Your task to perform on an android device: change alarm snooze length Image 0: 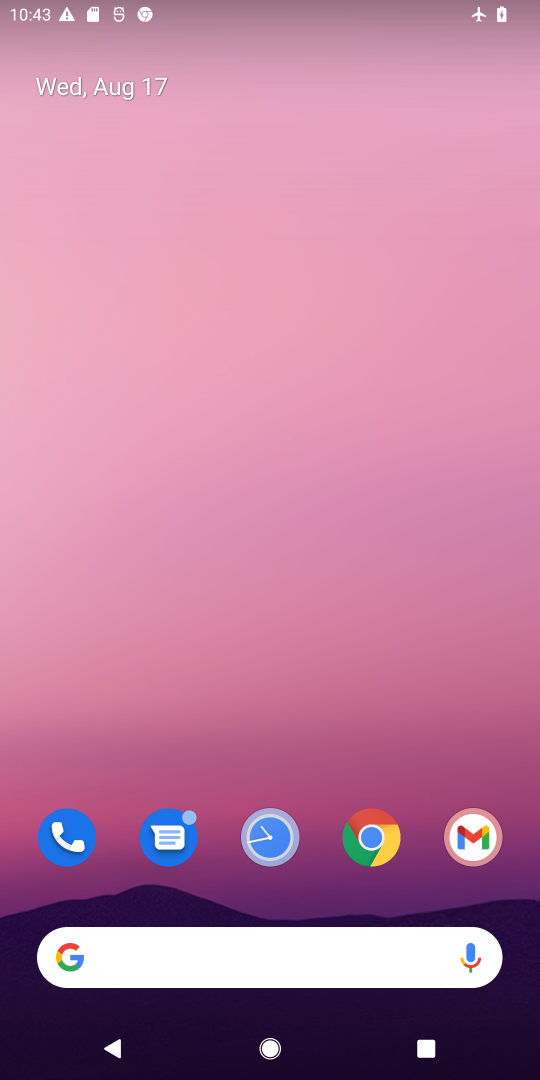
Step 0: drag from (295, 950) to (323, 354)
Your task to perform on an android device: change alarm snooze length Image 1: 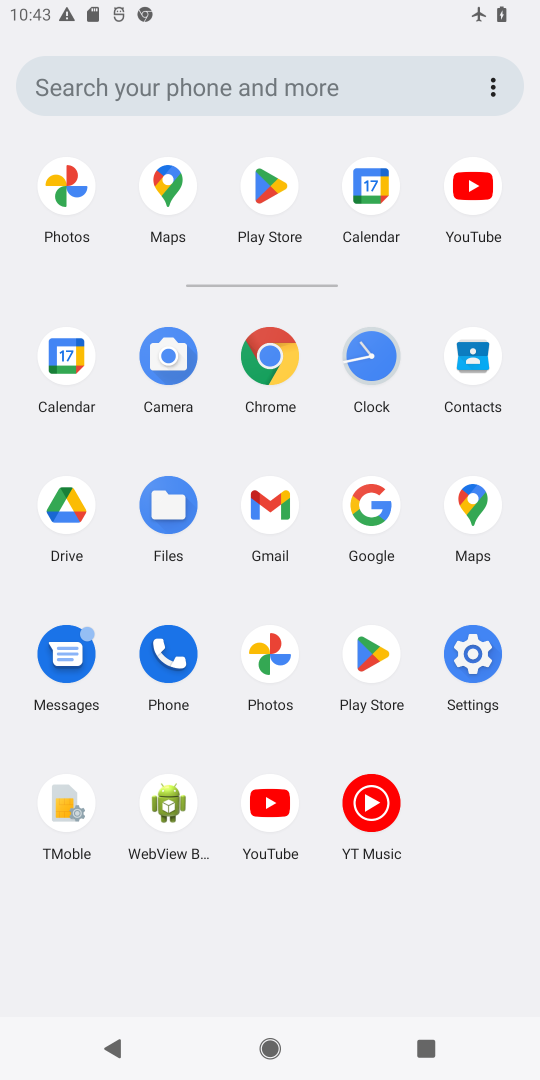
Step 1: click (371, 358)
Your task to perform on an android device: change alarm snooze length Image 2: 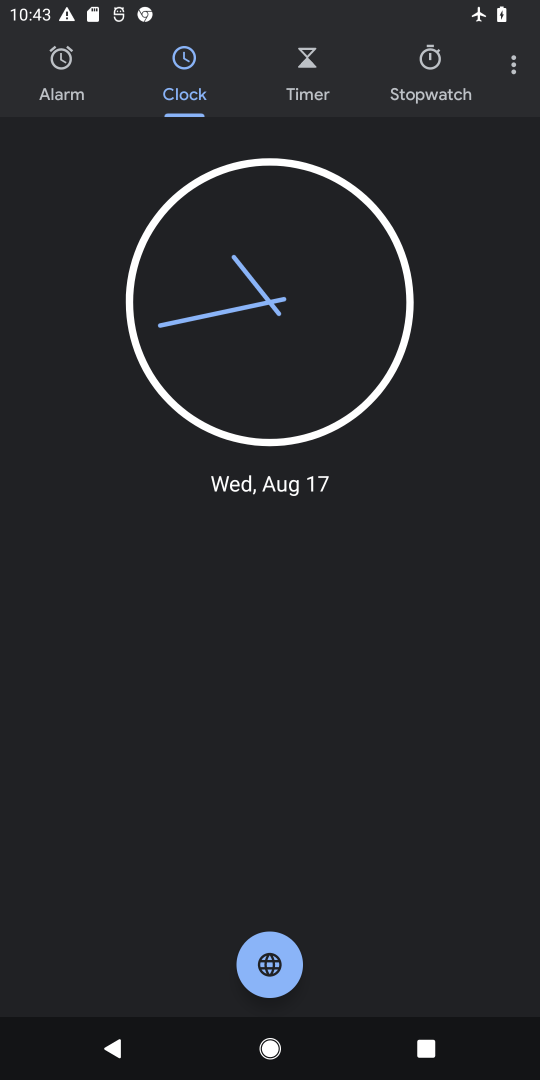
Step 2: click (513, 64)
Your task to perform on an android device: change alarm snooze length Image 3: 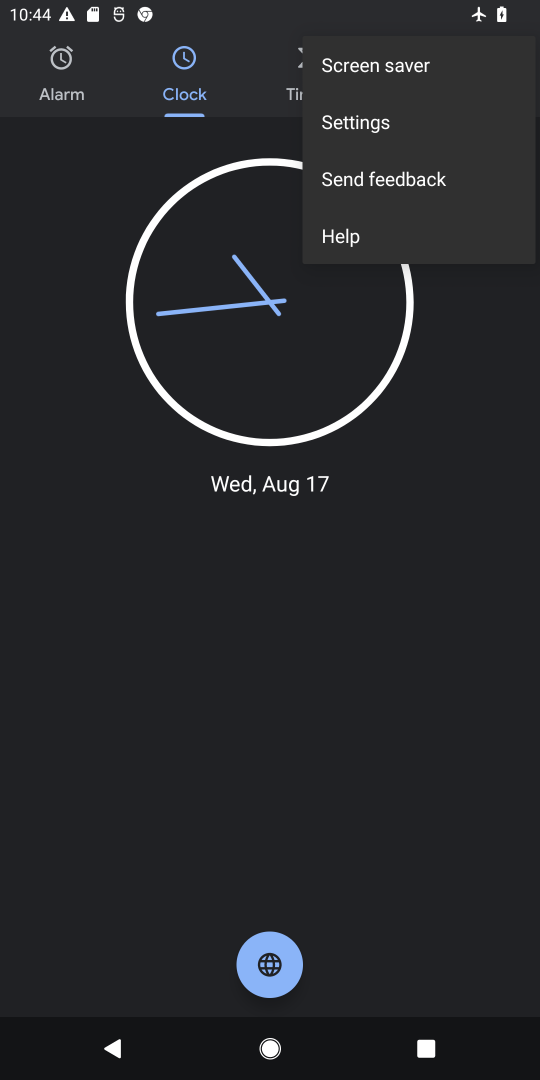
Step 3: click (380, 125)
Your task to perform on an android device: change alarm snooze length Image 4: 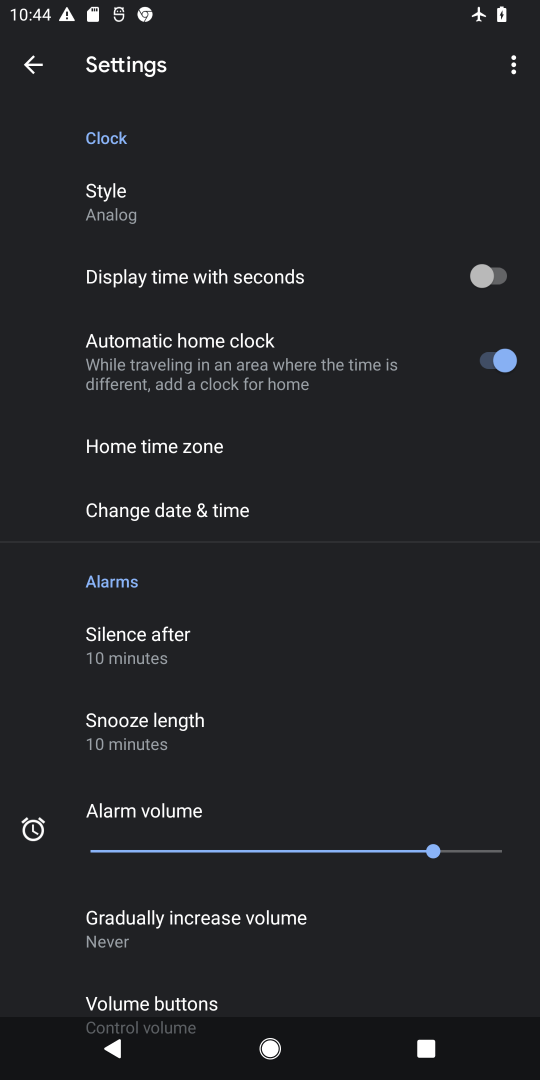
Step 4: click (177, 737)
Your task to perform on an android device: change alarm snooze length Image 5: 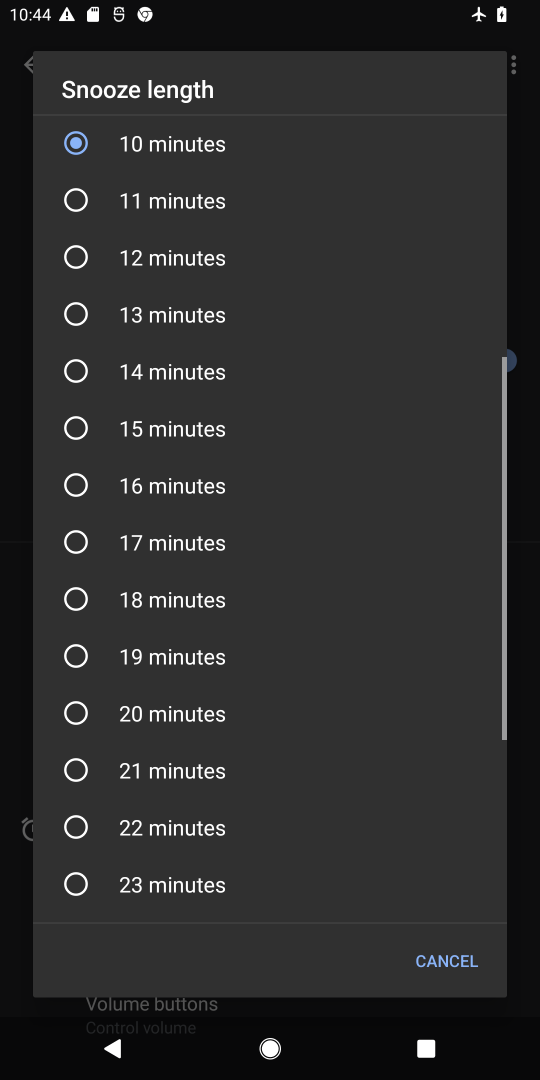
Step 5: drag from (179, 774) to (279, 503)
Your task to perform on an android device: change alarm snooze length Image 6: 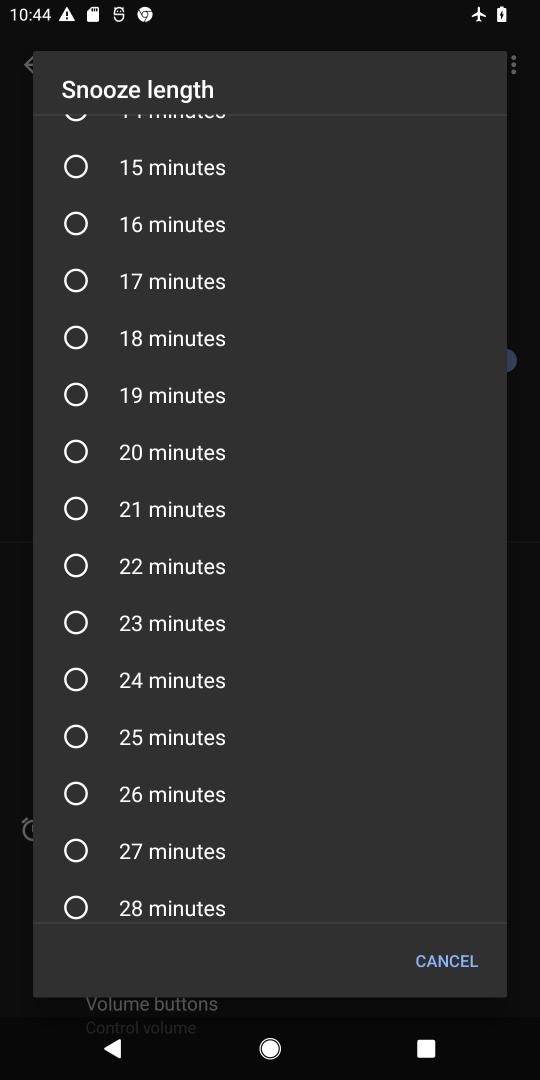
Step 6: click (187, 749)
Your task to perform on an android device: change alarm snooze length Image 7: 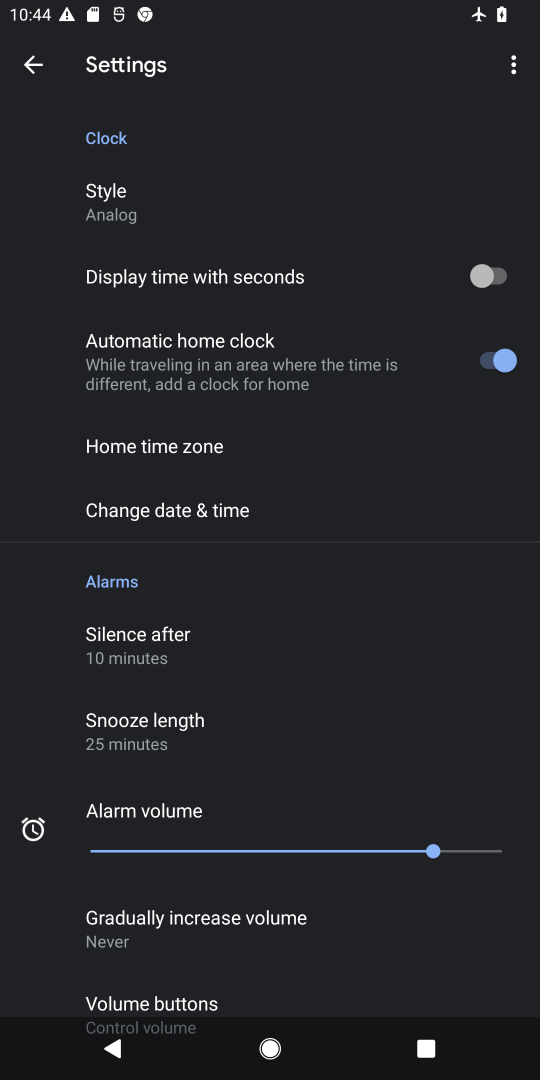
Step 7: task complete